Your task to perform on an android device: turn on airplane mode Image 0: 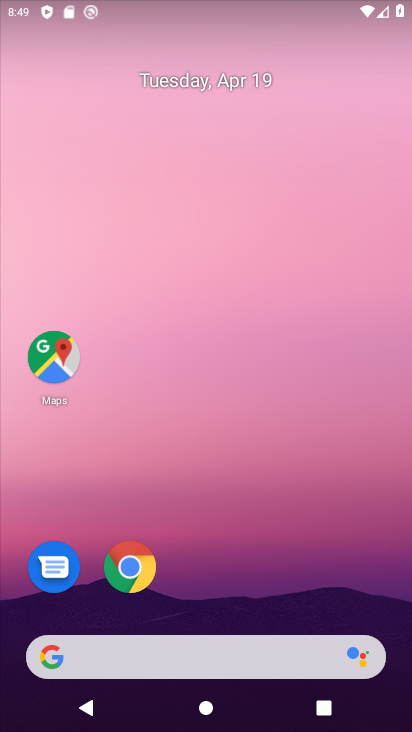
Step 0: drag from (204, 724) to (213, 22)
Your task to perform on an android device: turn on airplane mode Image 1: 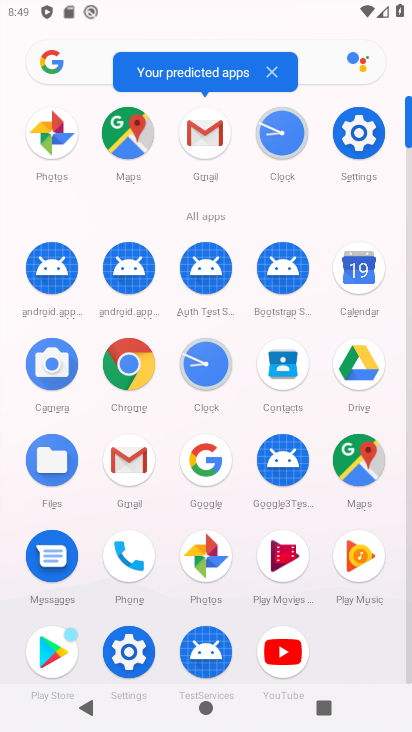
Step 1: click (354, 136)
Your task to perform on an android device: turn on airplane mode Image 2: 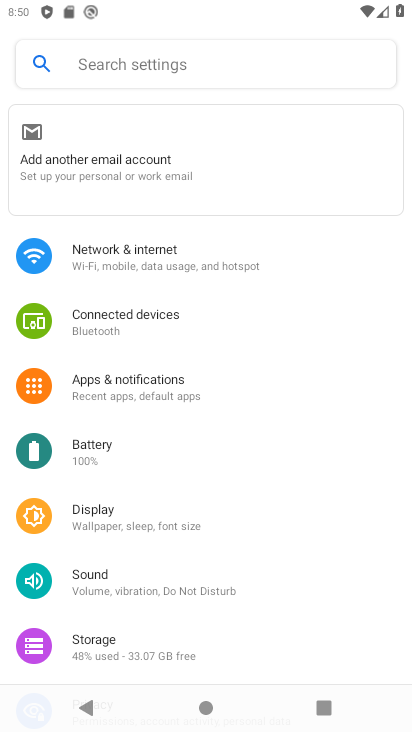
Step 2: click (118, 263)
Your task to perform on an android device: turn on airplane mode Image 3: 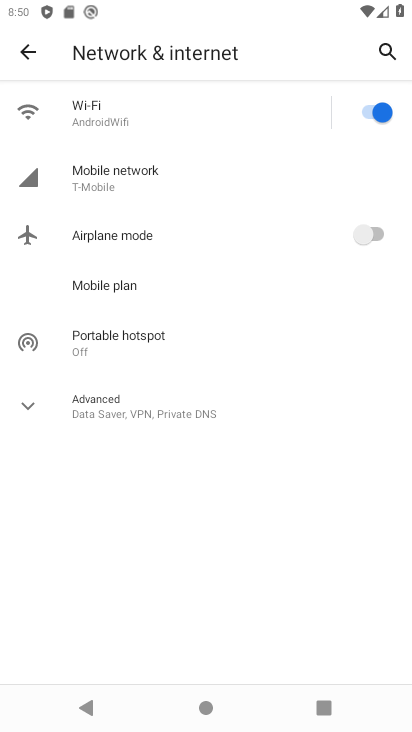
Step 3: click (379, 234)
Your task to perform on an android device: turn on airplane mode Image 4: 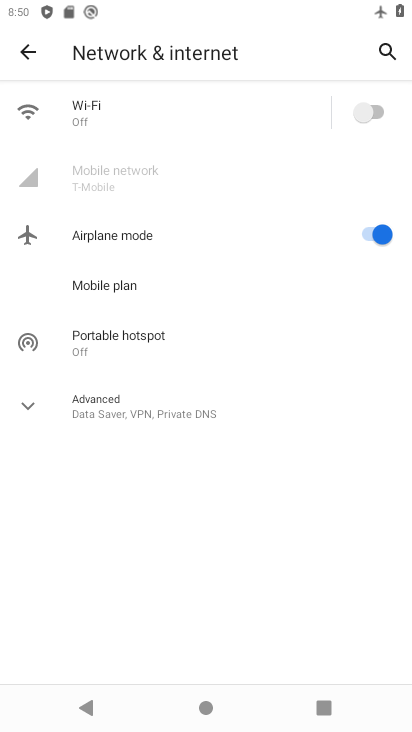
Step 4: task complete